Your task to perform on an android device: turn off notifications settings in the gmail app Image 0: 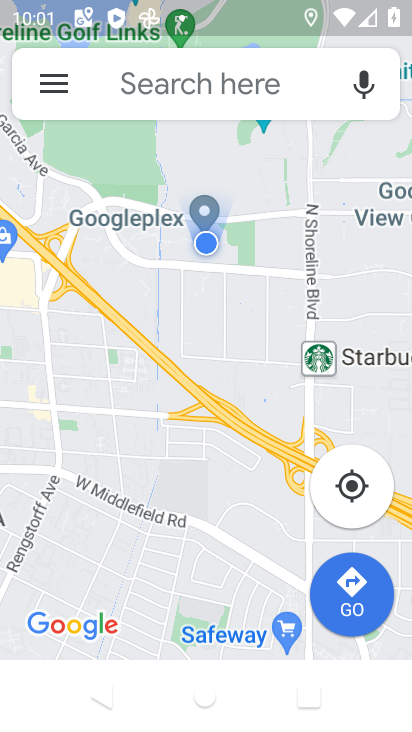
Step 0: press home button
Your task to perform on an android device: turn off notifications settings in the gmail app Image 1: 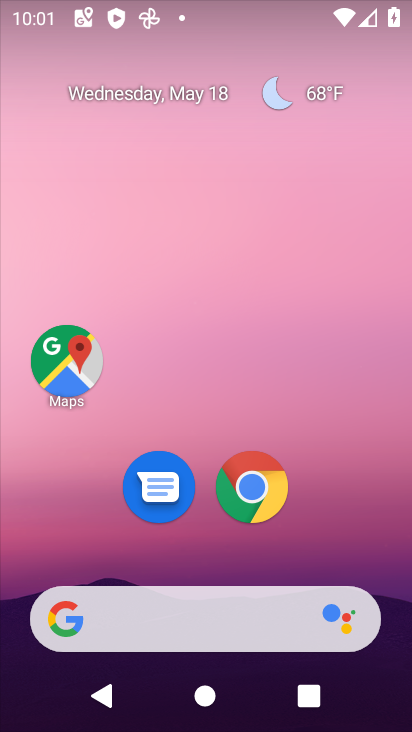
Step 1: drag from (356, 534) to (350, 170)
Your task to perform on an android device: turn off notifications settings in the gmail app Image 2: 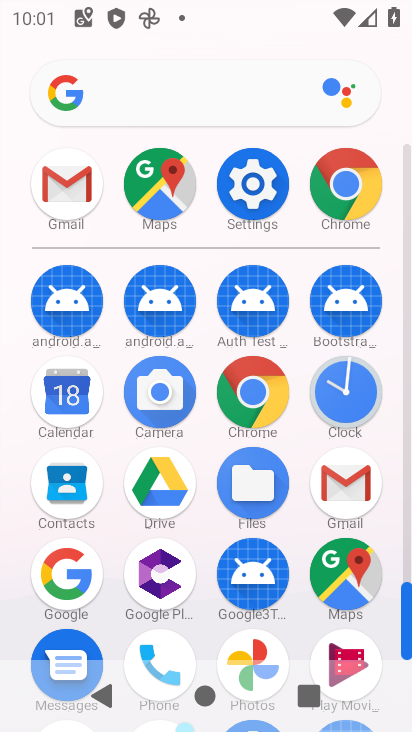
Step 2: click (359, 489)
Your task to perform on an android device: turn off notifications settings in the gmail app Image 3: 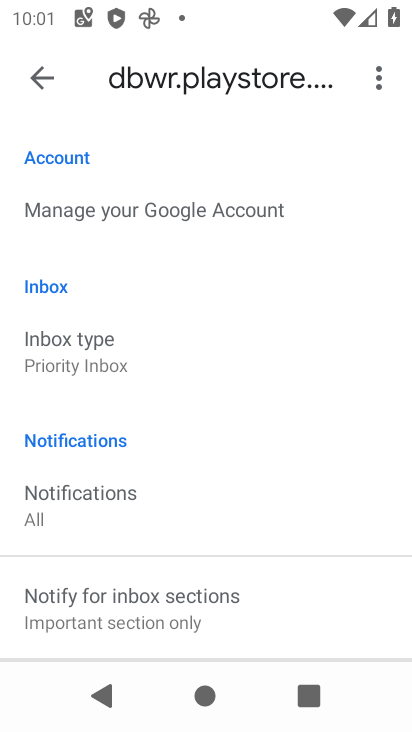
Step 3: click (121, 531)
Your task to perform on an android device: turn off notifications settings in the gmail app Image 4: 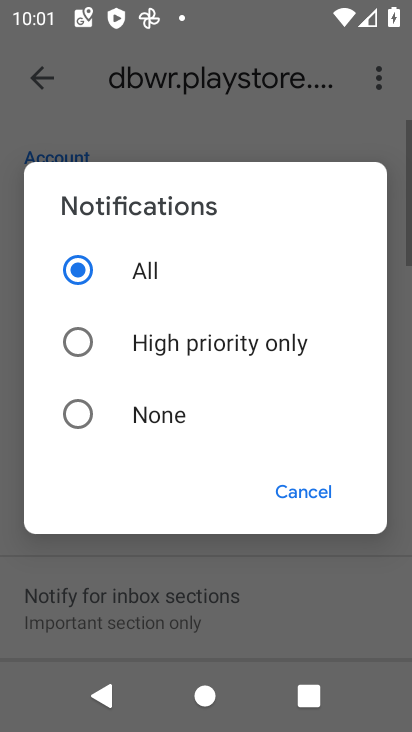
Step 4: click (155, 406)
Your task to perform on an android device: turn off notifications settings in the gmail app Image 5: 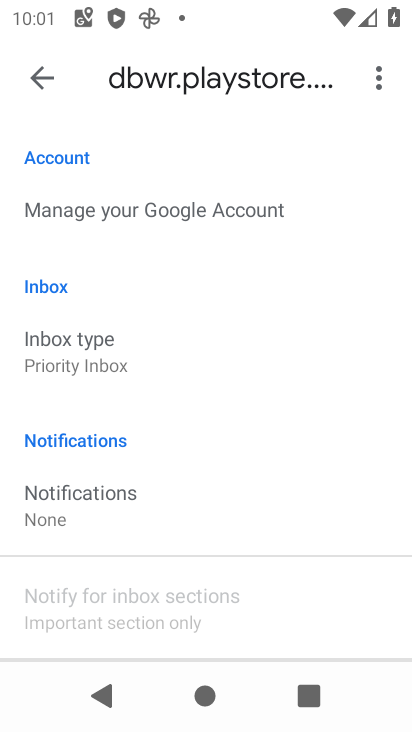
Step 5: task complete